Your task to perform on an android device: turn off priority inbox in the gmail app Image 0: 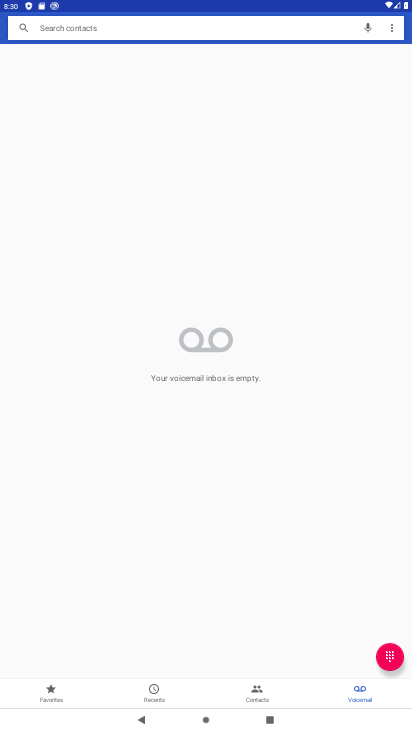
Step 0: press home button
Your task to perform on an android device: turn off priority inbox in the gmail app Image 1: 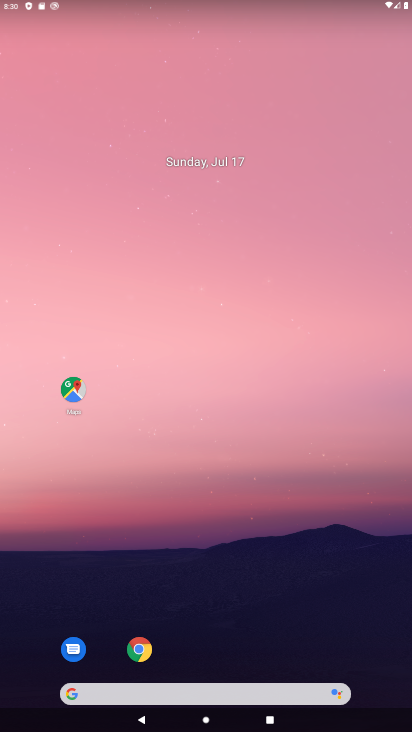
Step 1: drag from (216, 670) to (242, 143)
Your task to perform on an android device: turn off priority inbox in the gmail app Image 2: 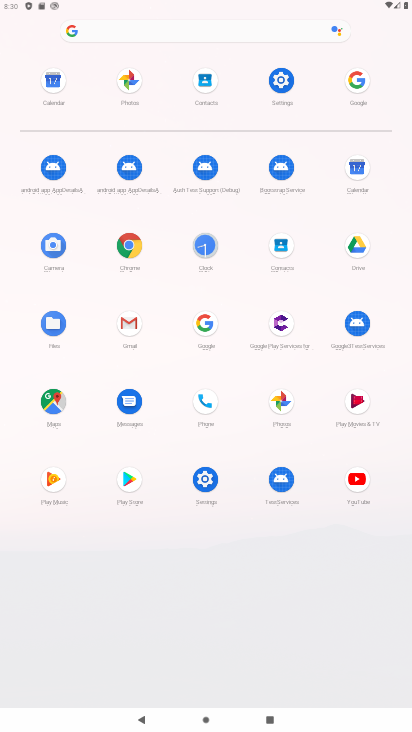
Step 2: click (131, 321)
Your task to perform on an android device: turn off priority inbox in the gmail app Image 3: 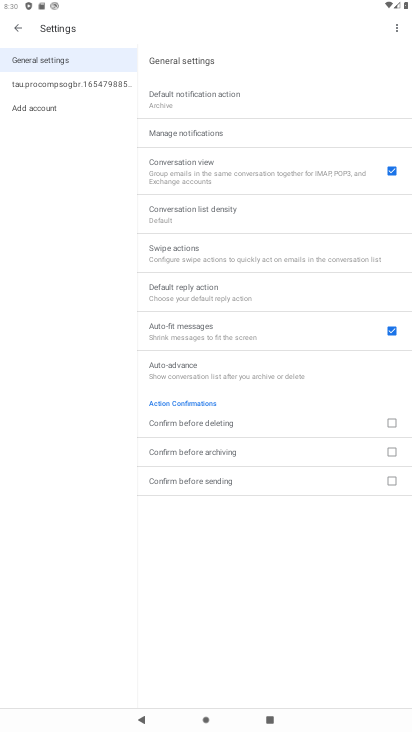
Step 3: click (35, 82)
Your task to perform on an android device: turn off priority inbox in the gmail app Image 4: 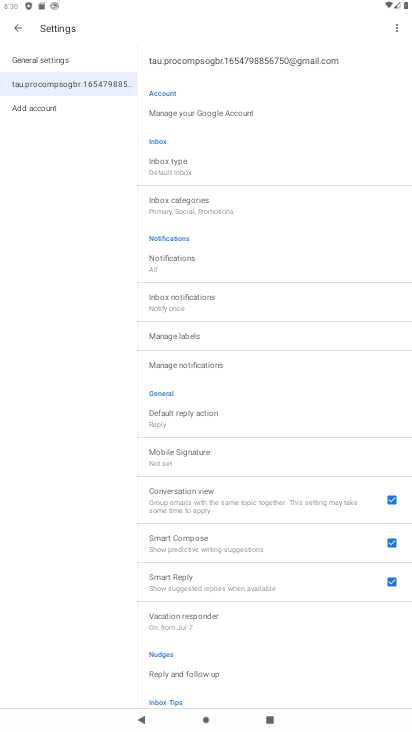
Step 4: click (174, 168)
Your task to perform on an android device: turn off priority inbox in the gmail app Image 5: 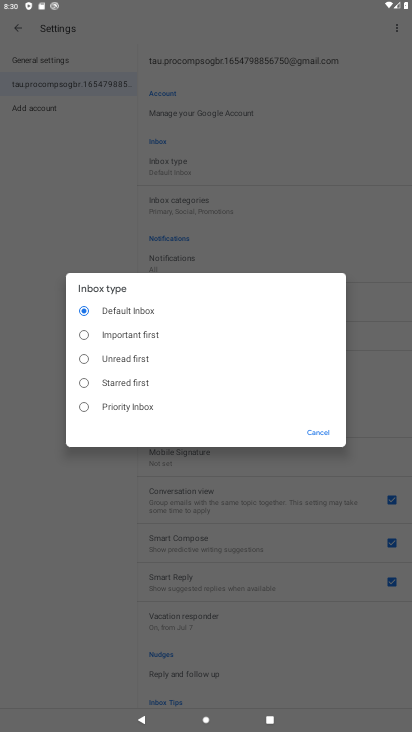
Step 5: task complete